Your task to perform on an android device: Go to Reddit.com Image 0: 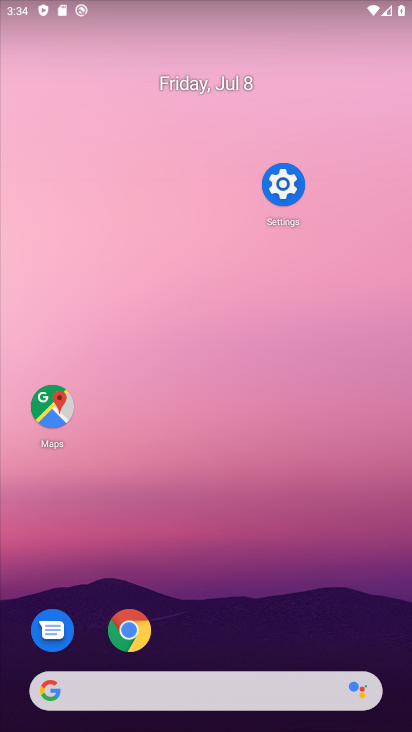
Step 0: click (131, 620)
Your task to perform on an android device: Go to Reddit.com Image 1: 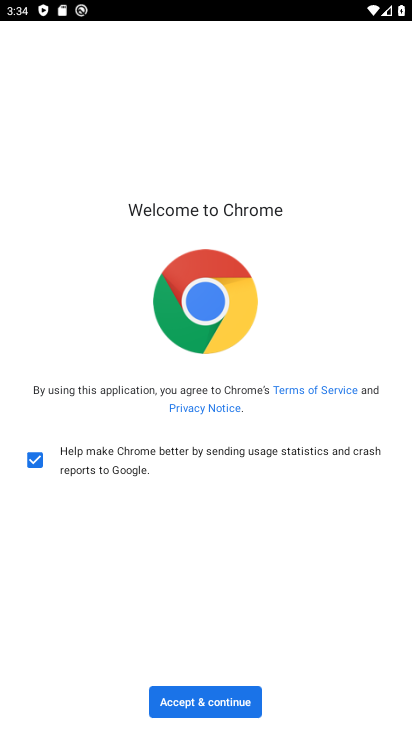
Step 1: click (196, 697)
Your task to perform on an android device: Go to Reddit.com Image 2: 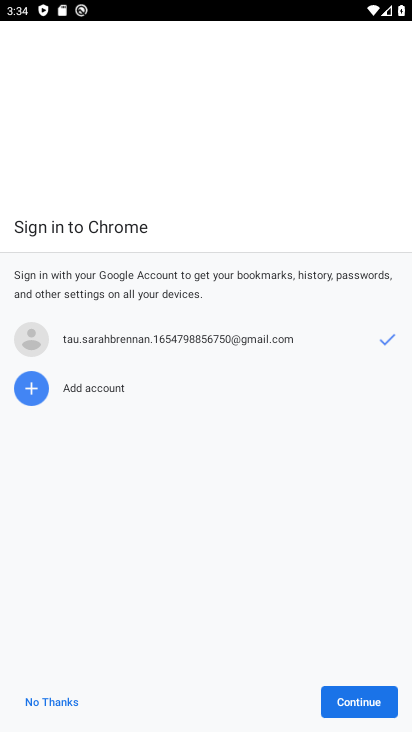
Step 2: click (362, 698)
Your task to perform on an android device: Go to Reddit.com Image 3: 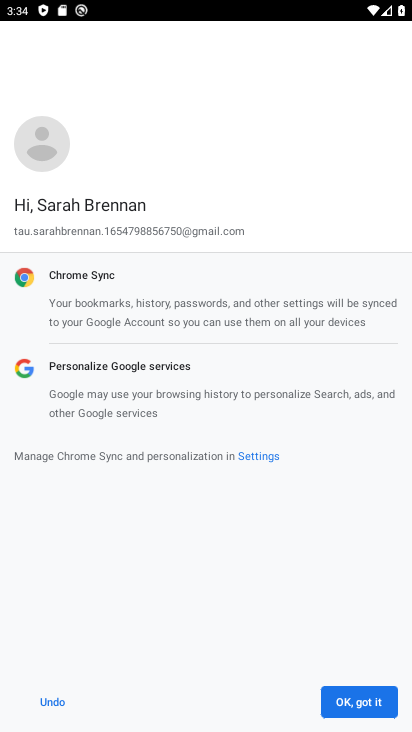
Step 3: click (337, 706)
Your task to perform on an android device: Go to Reddit.com Image 4: 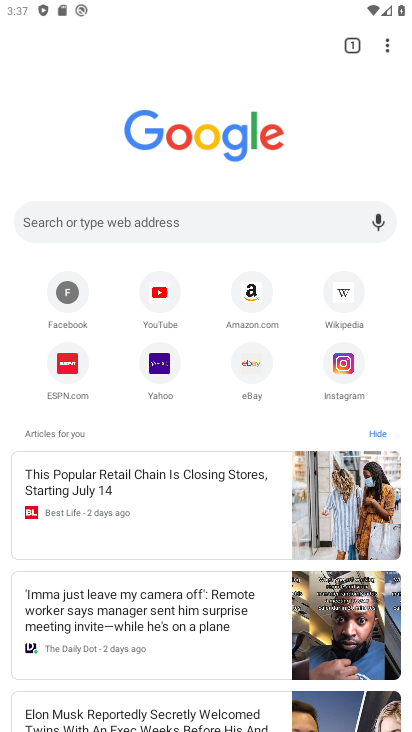
Step 4: click (178, 229)
Your task to perform on an android device: Go to Reddit.com Image 5: 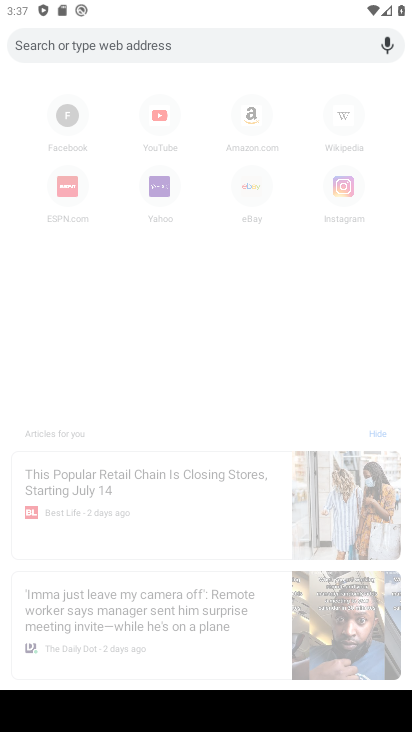
Step 5: type "reddit"
Your task to perform on an android device: Go to Reddit.com Image 6: 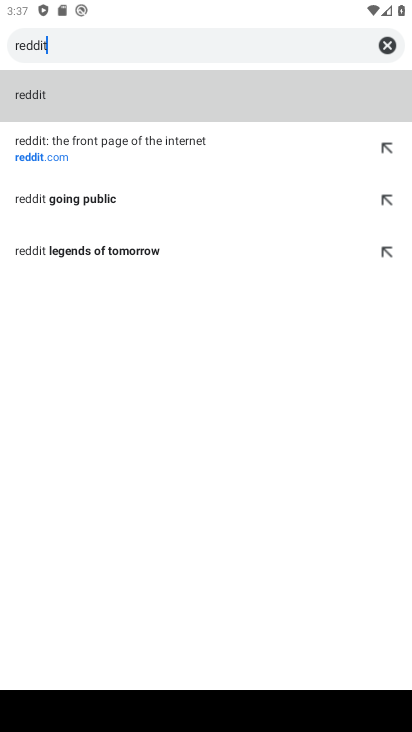
Step 6: click (139, 96)
Your task to perform on an android device: Go to Reddit.com Image 7: 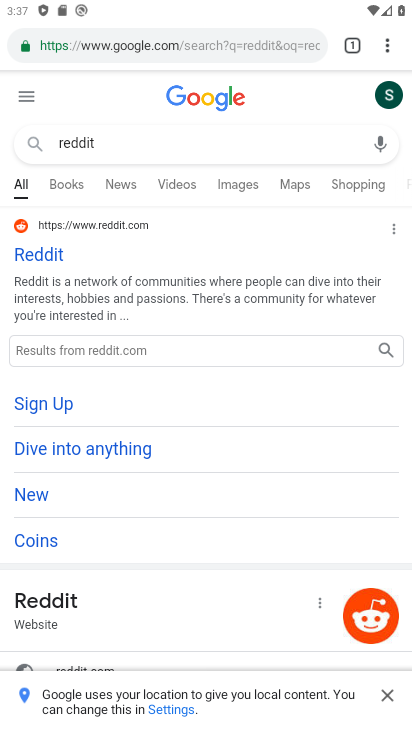
Step 7: click (55, 252)
Your task to perform on an android device: Go to Reddit.com Image 8: 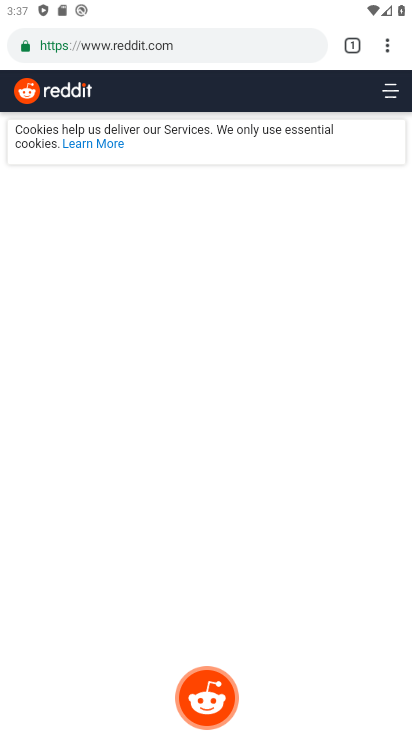
Step 8: task complete